Your task to perform on an android device: toggle priority inbox in the gmail app Image 0: 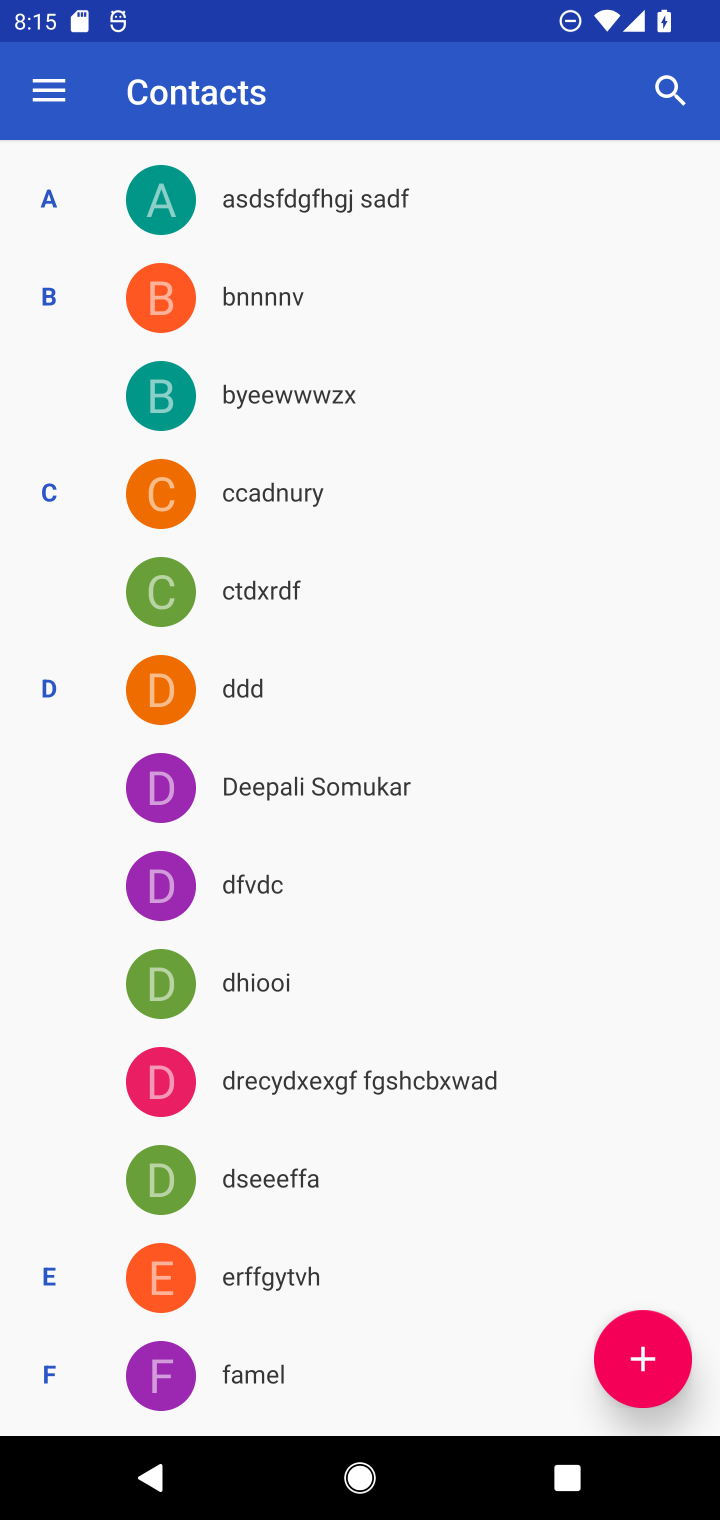
Step 0: press home button
Your task to perform on an android device: toggle priority inbox in the gmail app Image 1: 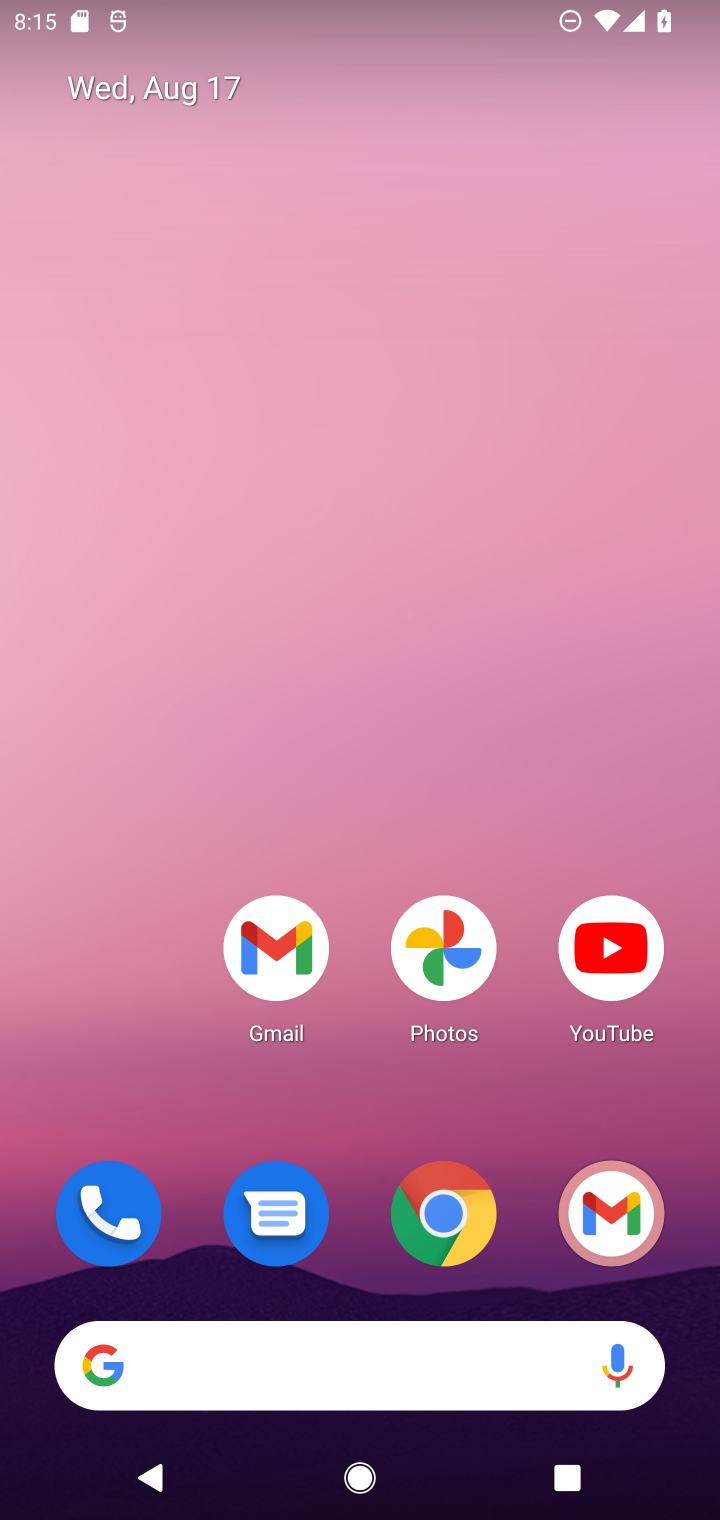
Step 1: click (301, 960)
Your task to perform on an android device: toggle priority inbox in the gmail app Image 2: 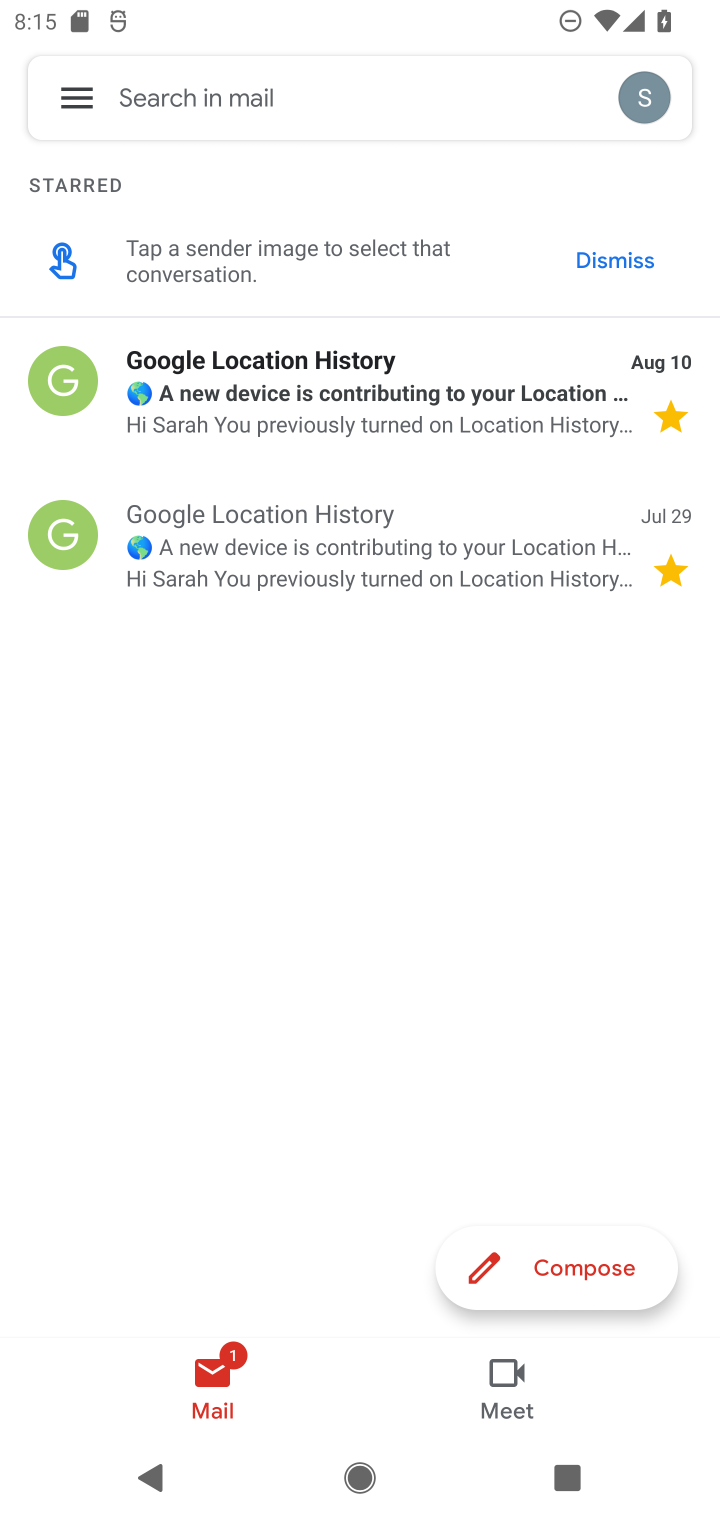
Step 2: click (52, 90)
Your task to perform on an android device: toggle priority inbox in the gmail app Image 3: 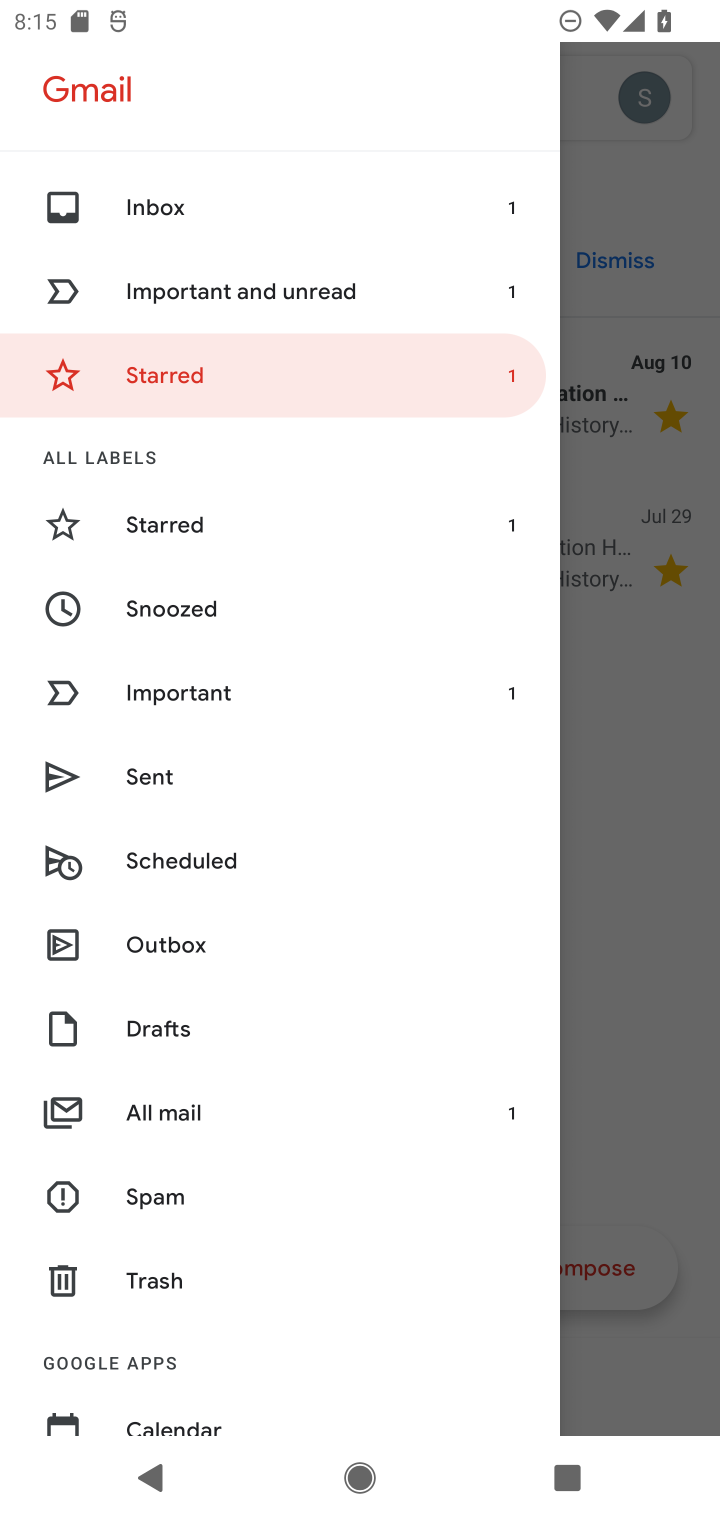
Step 3: click (253, 221)
Your task to perform on an android device: toggle priority inbox in the gmail app Image 4: 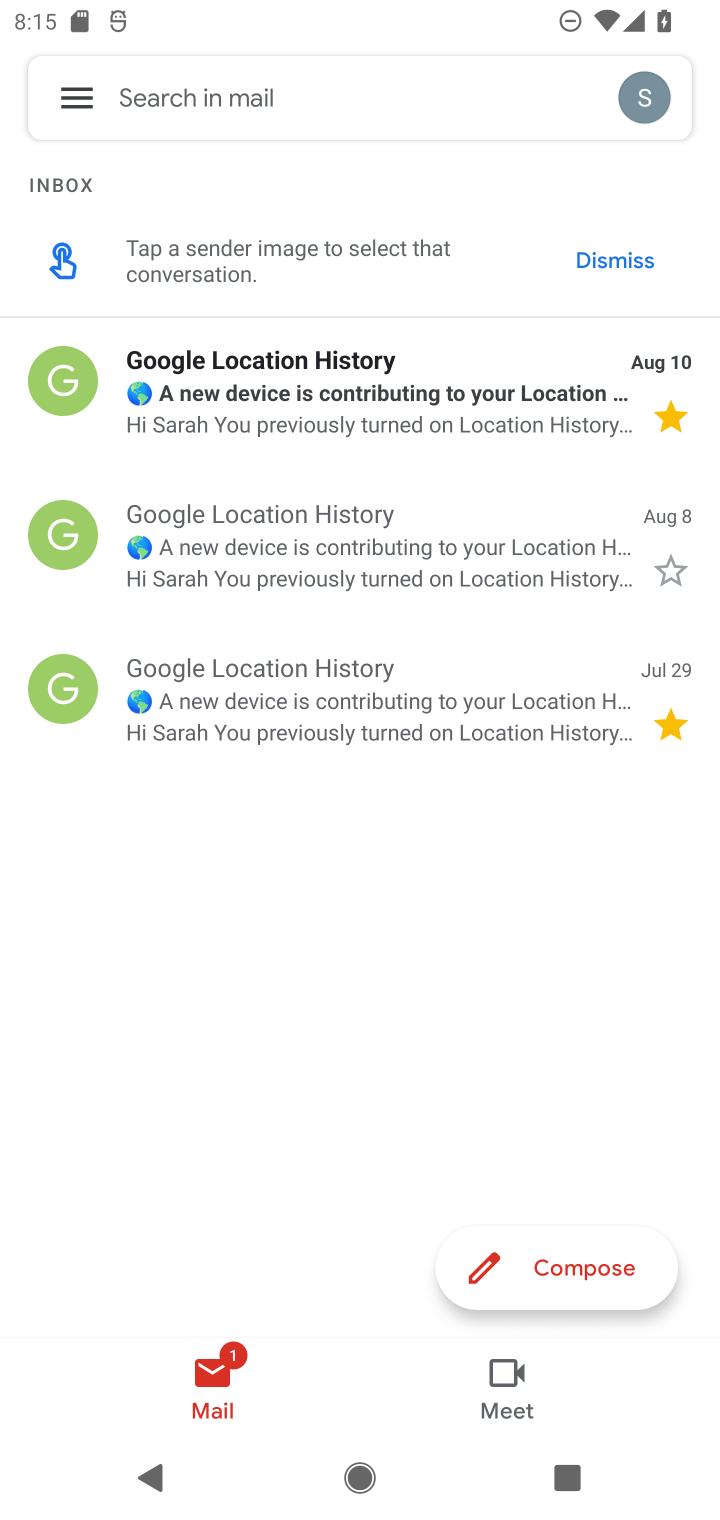
Step 4: task complete